Your task to perform on an android device: Check the weather Image 0: 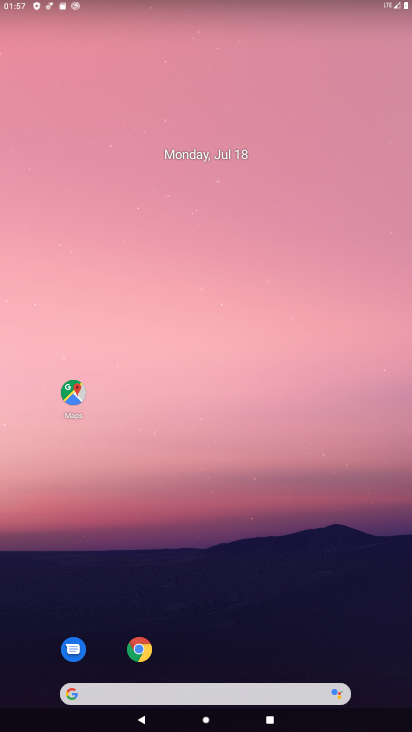
Step 0: click (183, 698)
Your task to perform on an android device: Check the weather Image 1: 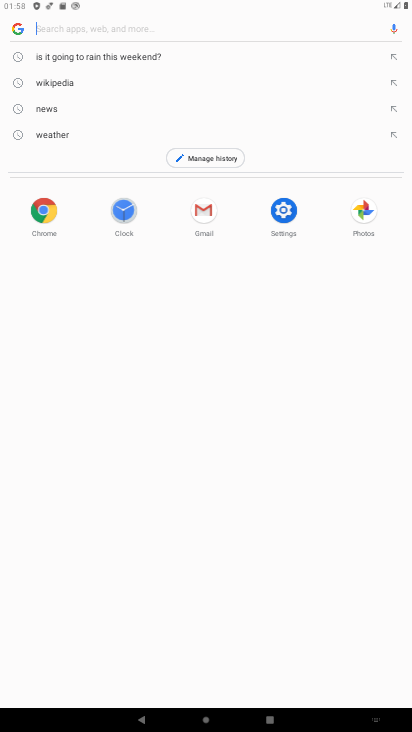
Step 1: click (48, 130)
Your task to perform on an android device: Check the weather Image 2: 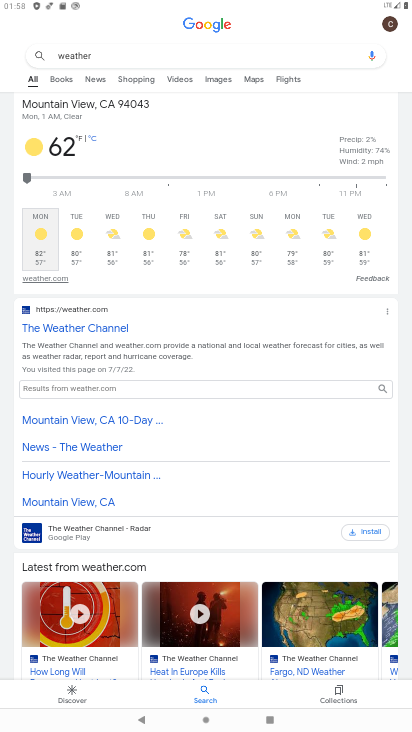
Step 2: task complete